Your task to perform on an android device: check data usage Image 0: 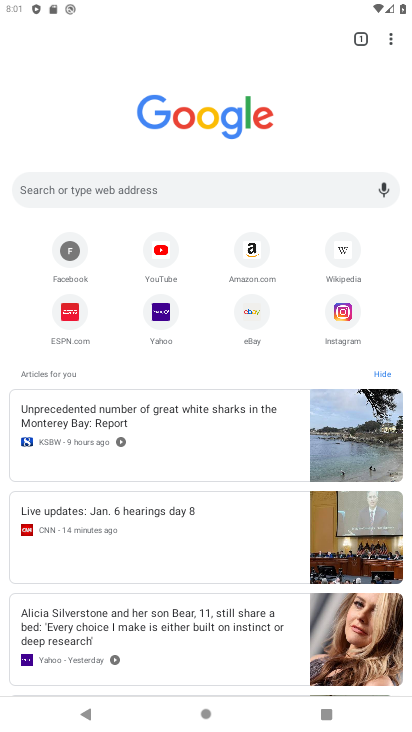
Step 0: press home button
Your task to perform on an android device: check data usage Image 1: 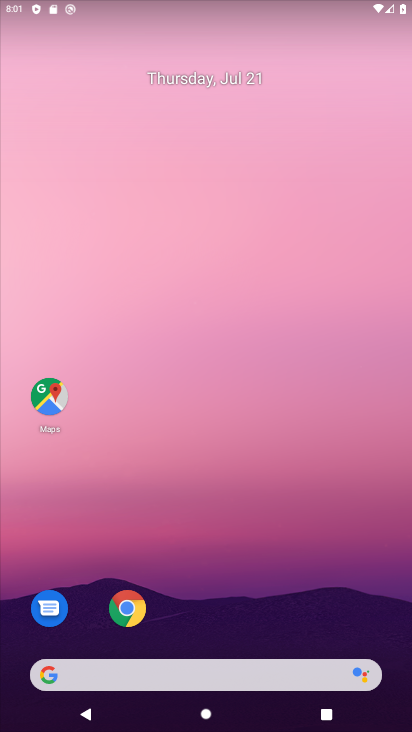
Step 1: drag from (48, 675) to (152, 182)
Your task to perform on an android device: check data usage Image 2: 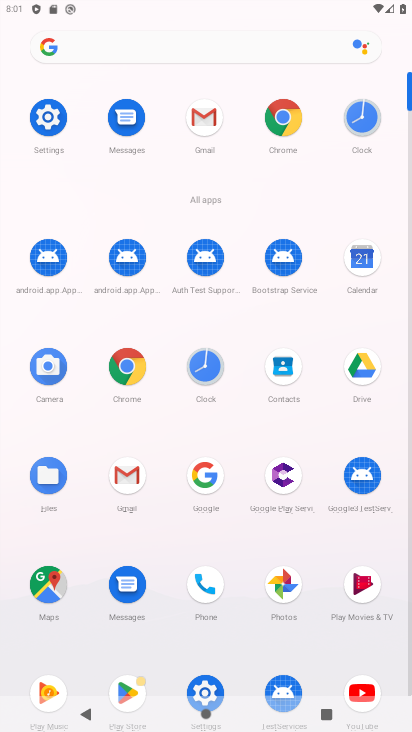
Step 2: click (212, 688)
Your task to perform on an android device: check data usage Image 3: 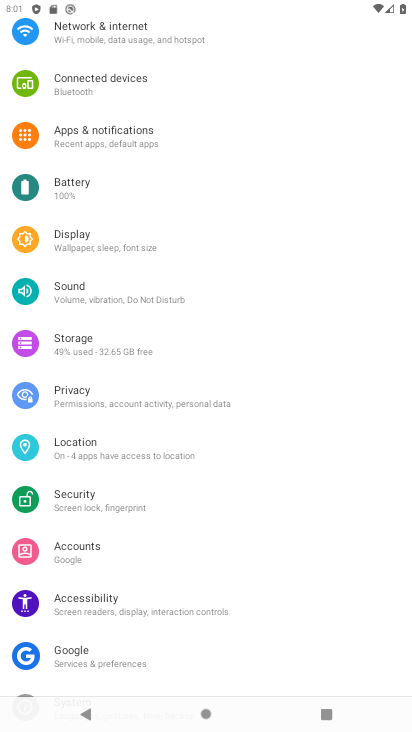
Step 3: click (126, 37)
Your task to perform on an android device: check data usage Image 4: 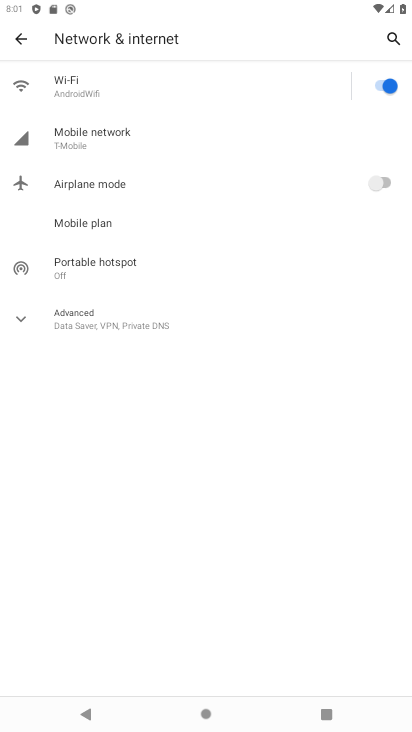
Step 4: click (97, 142)
Your task to perform on an android device: check data usage Image 5: 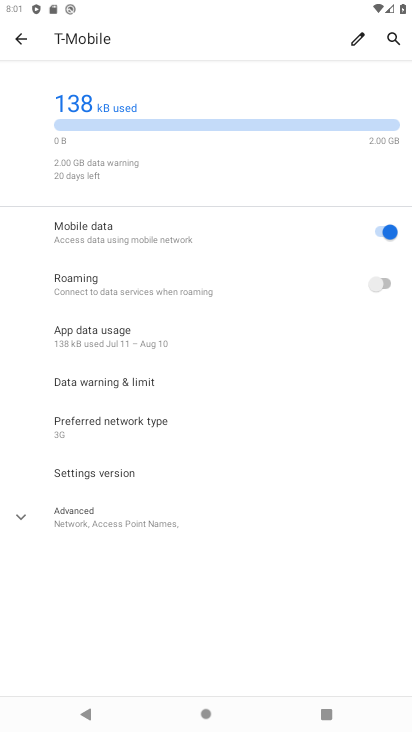
Step 5: task complete